Your task to perform on an android device: When is my next appointment? Image 0: 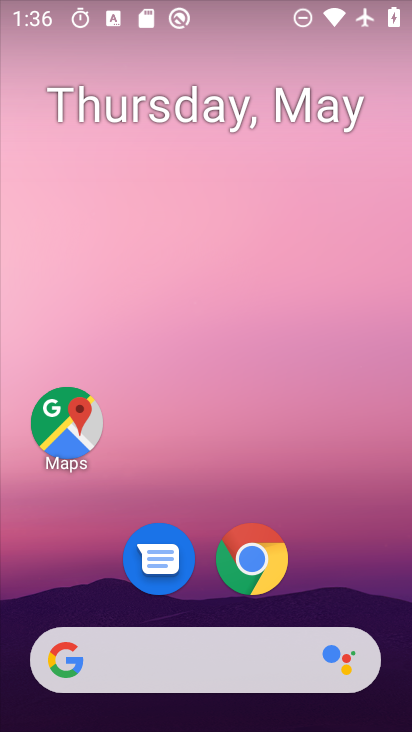
Step 0: drag from (205, 641) to (281, 65)
Your task to perform on an android device: When is my next appointment? Image 1: 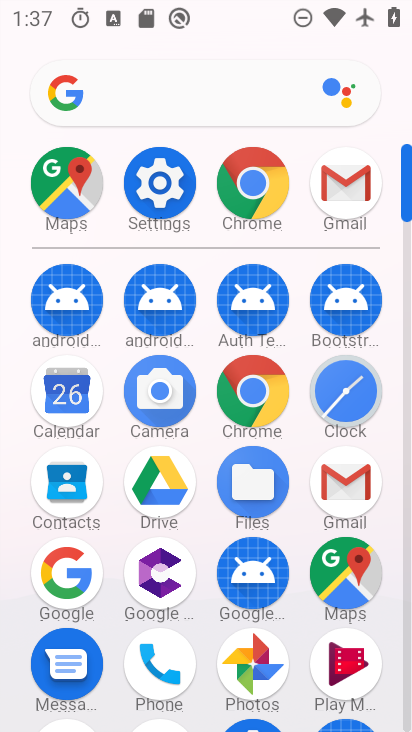
Step 1: click (74, 405)
Your task to perform on an android device: When is my next appointment? Image 2: 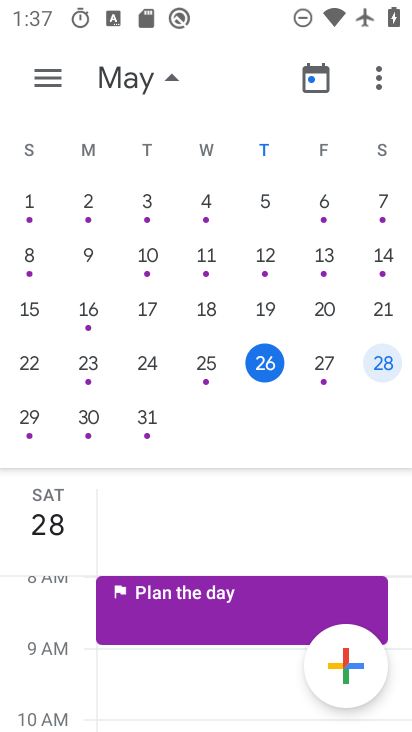
Step 2: click (61, 75)
Your task to perform on an android device: When is my next appointment? Image 3: 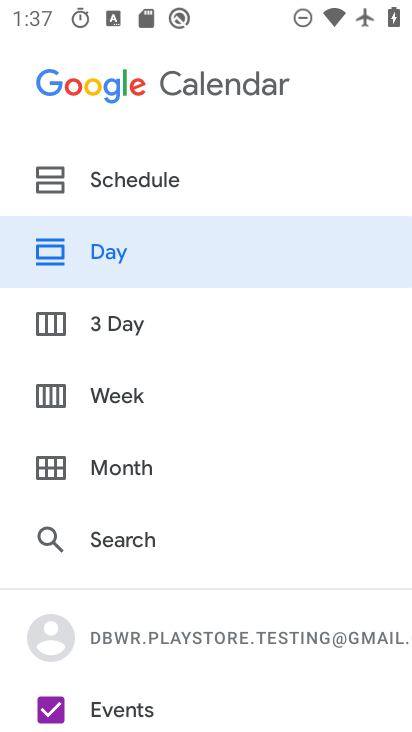
Step 3: task complete